Your task to perform on an android device: turn on location history Image 0: 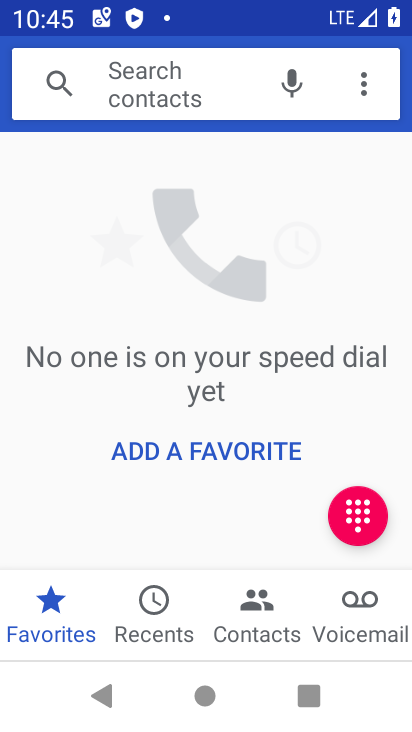
Step 0: press home button
Your task to perform on an android device: turn on location history Image 1: 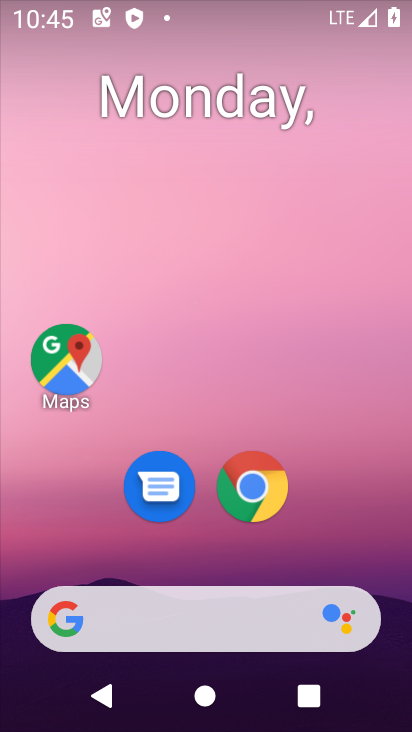
Step 1: drag from (43, 661) to (298, 127)
Your task to perform on an android device: turn on location history Image 2: 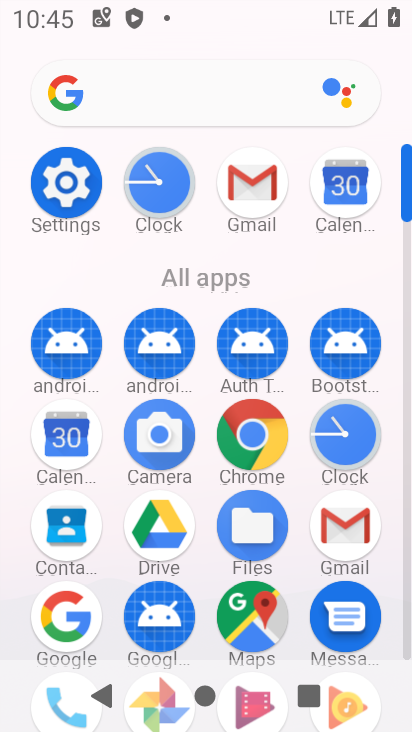
Step 2: click (54, 194)
Your task to perform on an android device: turn on location history Image 3: 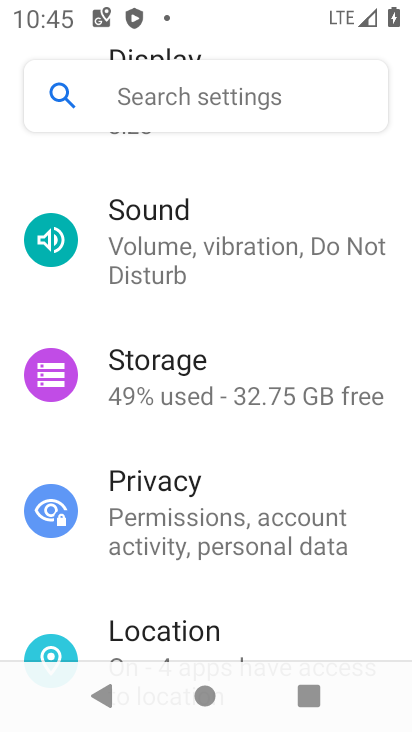
Step 3: click (123, 613)
Your task to perform on an android device: turn on location history Image 4: 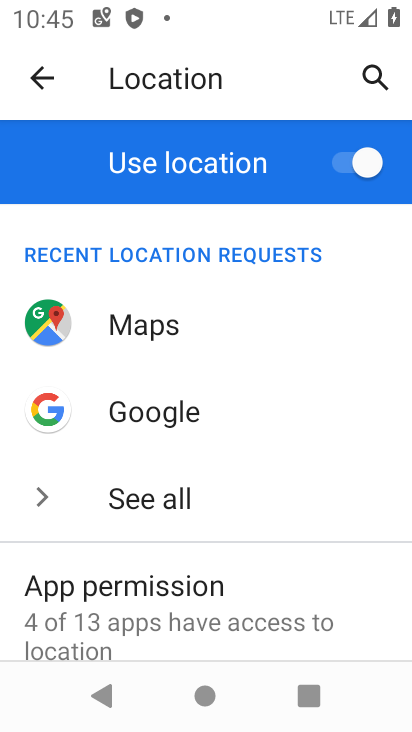
Step 4: drag from (42, 424) to (186, 214)
Your task to perform on an android device: turn on location history Image 5: 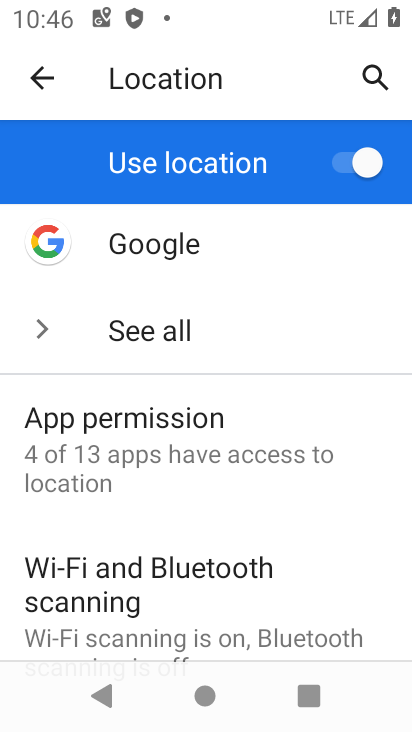
Step 5: drag from (20, 556) to (204, 193)
Your task to perform on an android device: turn on location history Image 6: 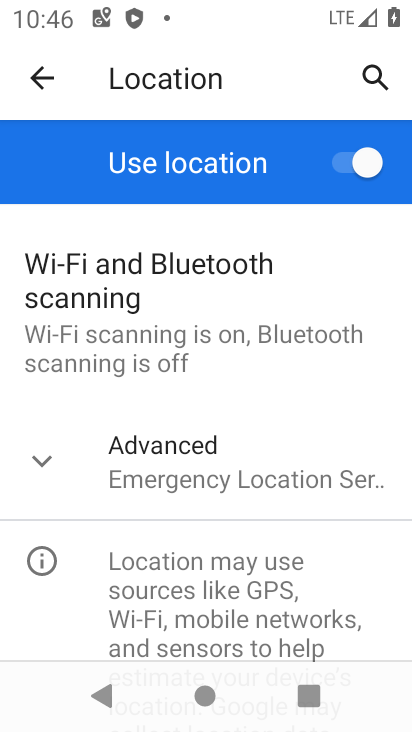
Step 6: click (149, 477)
Your task to perform on an android device: turn on location history Image 7: 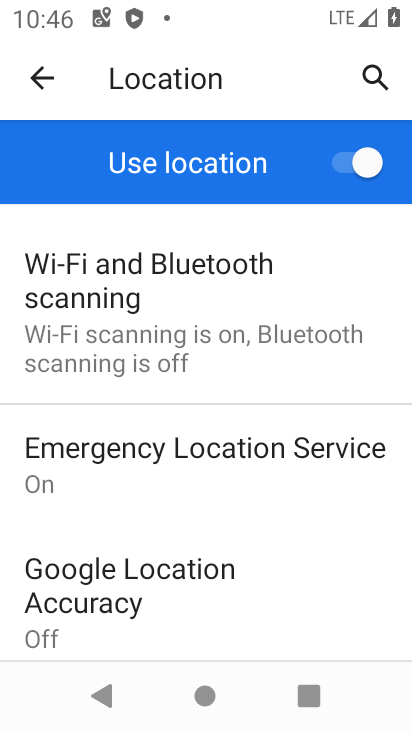
Step 7: drag from (3, 479) to (93, 300)
Your task to perform on an android device: turn on location history Image 8: 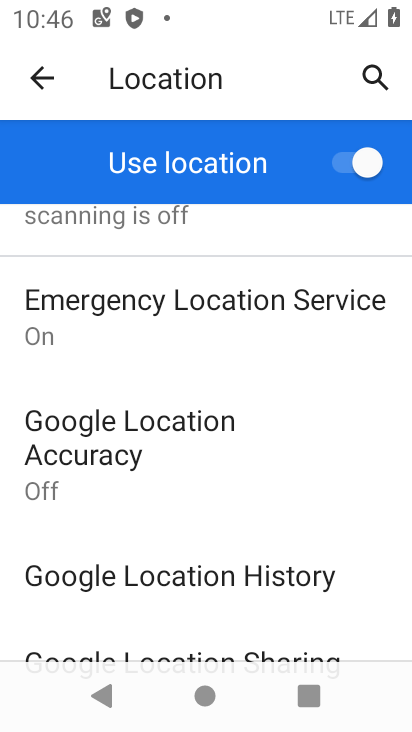
Step 8: click (90, 562)
Your task to perform on an android device: turn on location history Image 9: 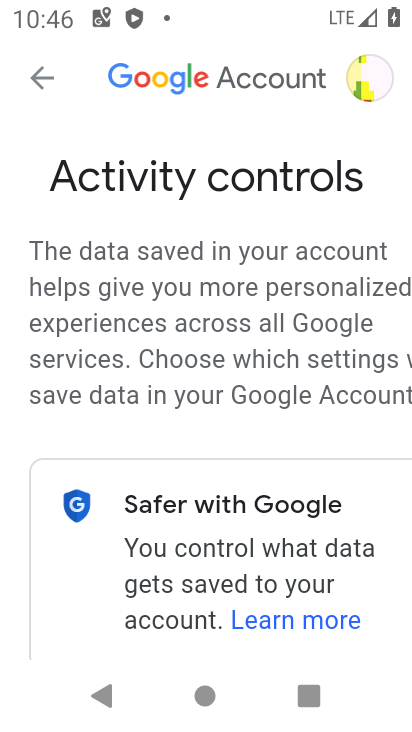
Step 9: drag from (33, 455) to (189, 199)
Your task to perform on an android device: turn on location history Image 10: 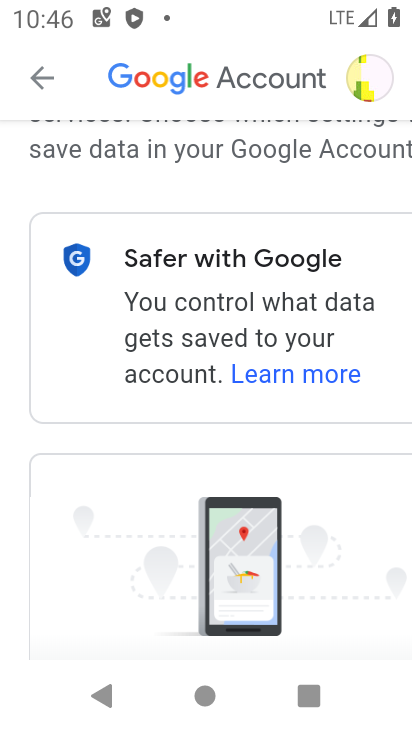
Step 10: drag from (7, 541) to (232, 202)
Your task to perform on an android device: turn on location history Image 11: 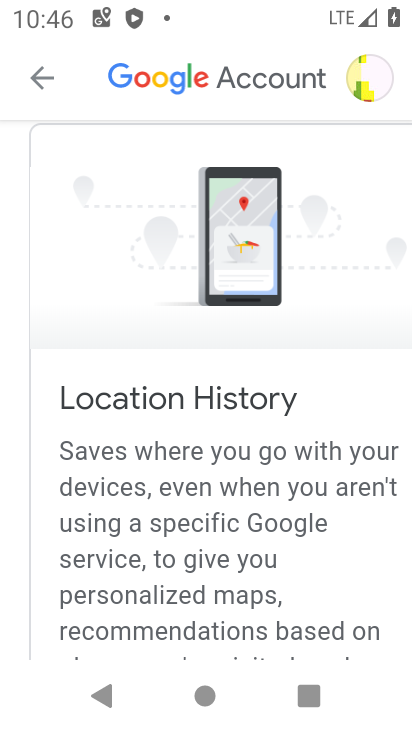
Step 11: drag from (54, 581) to (279, 213)
Your task to perform on an android device: turn on location history Image 12: 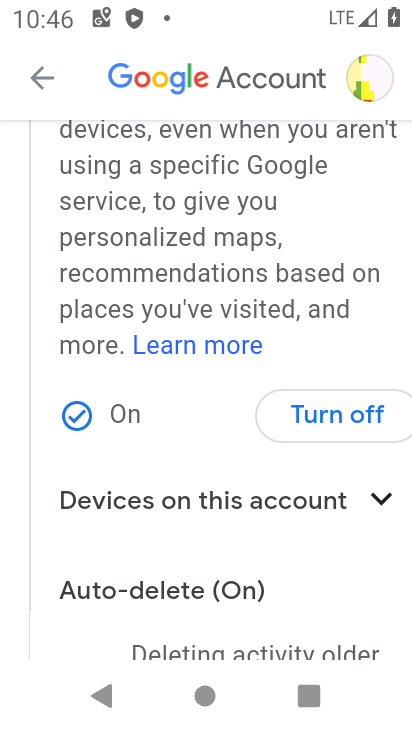
Step 12: click (318, 421)
Your task to perform on an android device: turn on location history Image 13: 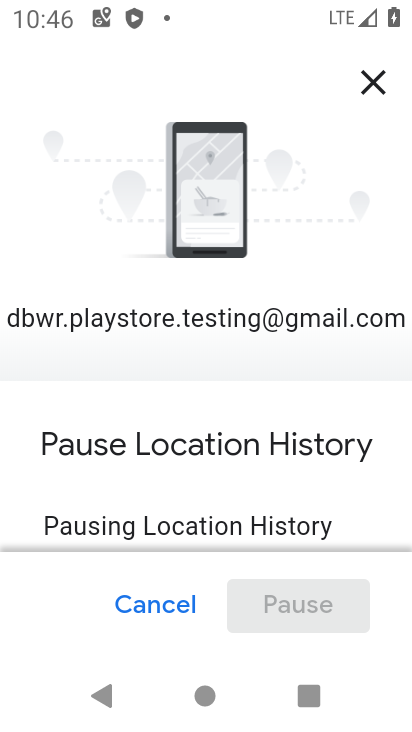
Step 13: drag from (1, 517) to (294, 183)
Your task to perform on an android device: turn on location history Image 14: 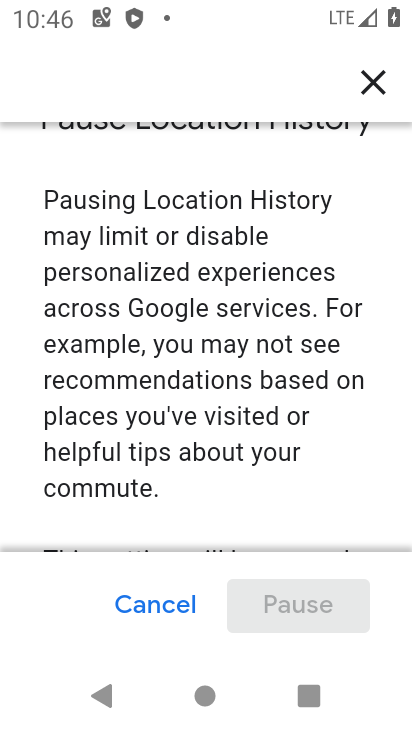
Step 14: drag from (26, 478) to (290, 181)
Your task to perform on an android device: turn on location history Image 15: 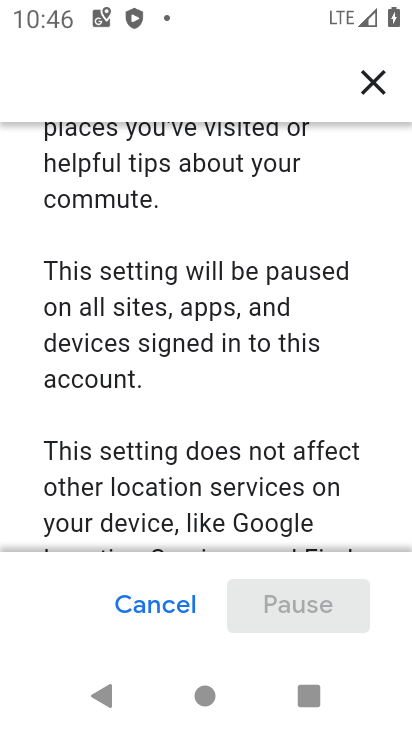
Step 15: drag from (17, 421) to (314, 135)
Your task to perform on an android device: turn on location history Image 16: 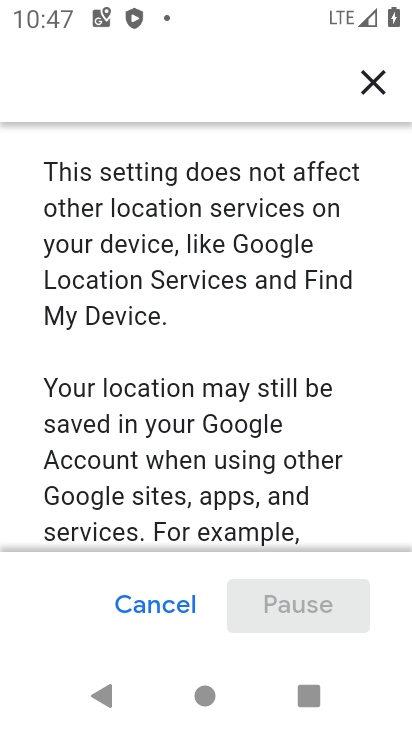
Step 16: drag from (40, 487) to (318, 188)
Your task to perform on an android device: turn on location history Image 17: 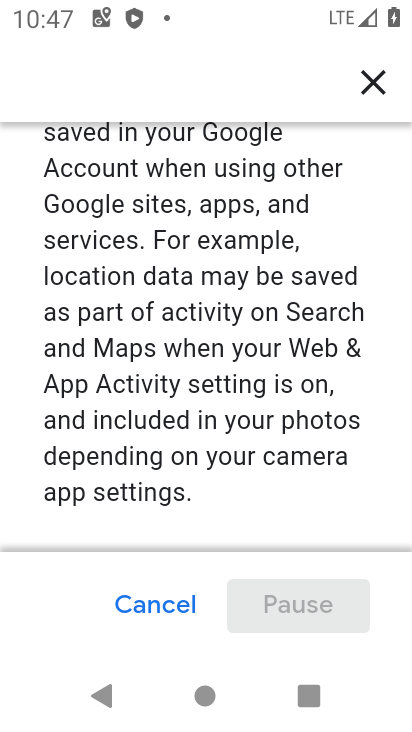
Step 17: drag from (40, 471) to (348, 155)
Your task to perform on an android device: turn on location history Image 18: 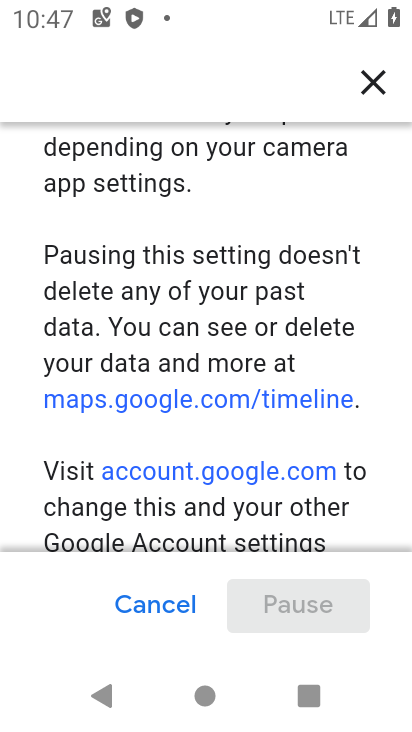
Step 18: drag from (20, 485) to (345, 239)
Your task to perform on an android device: turn on location history Image 19: 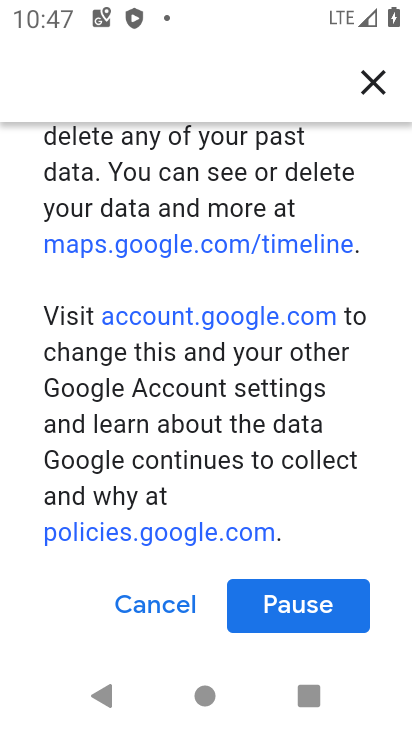
Step 19: click (306, 614)
Your task to perform on an android device: turn on location history Image 20: 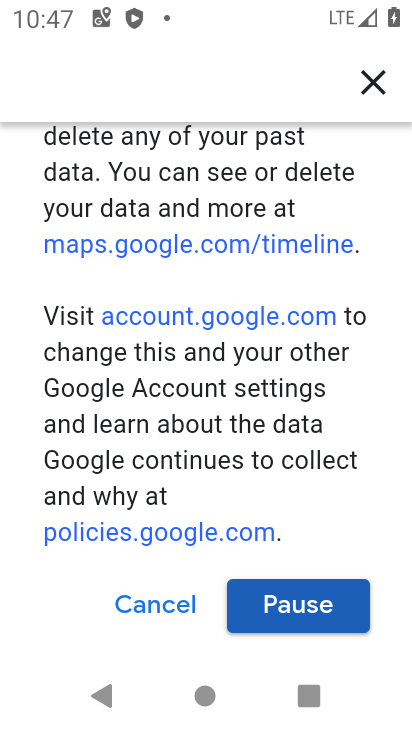
Step 20: click (294, 606)
Your task to perform on an android device: turn on location history Image 21: 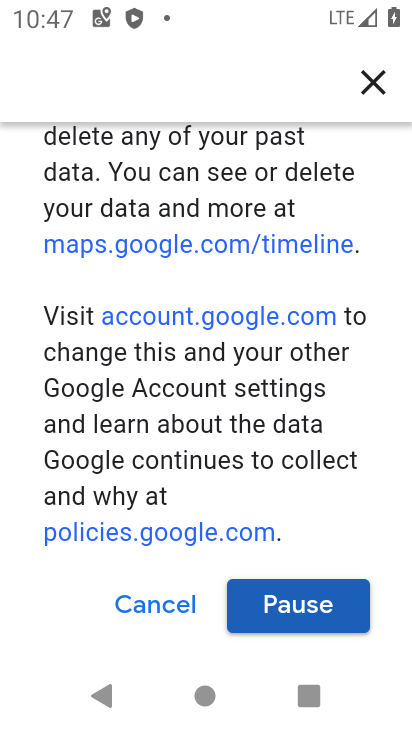
Step 21: click (288, 601)
Your task to perform on an android device: turn on location history Image 22: 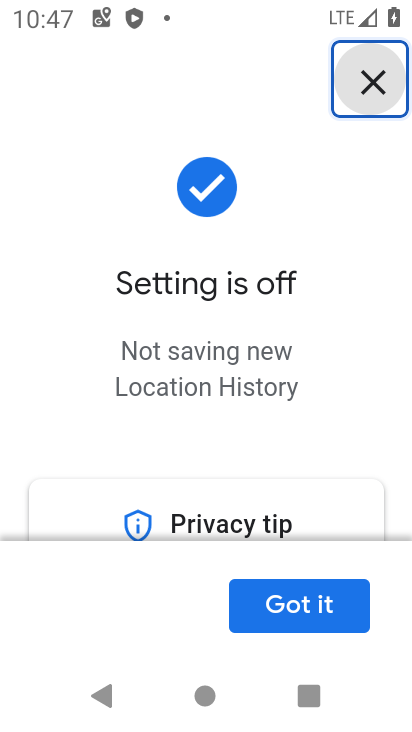
Step 22: click (298, 605)
Your task to perform on an android device: turn on location history Image 23: 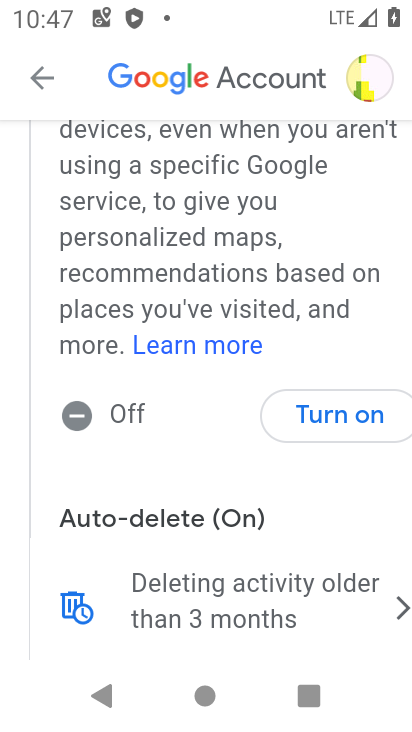
Step 23: task complete